Your task to perform on an android device: Go to network settings Image 0: 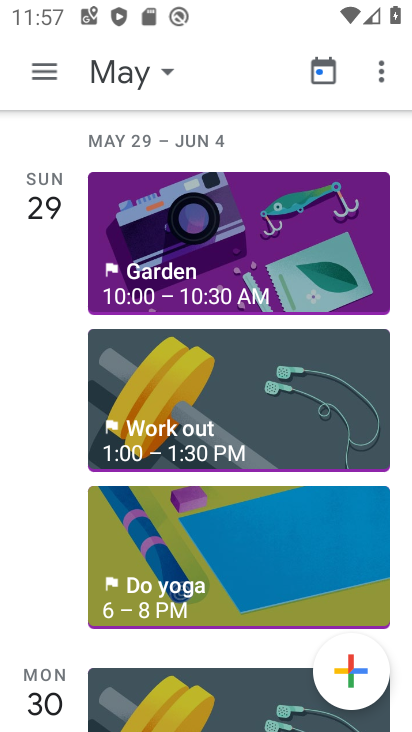
Step 0: press home button
Your task to perform on an android device: Go to network settings Image 1: 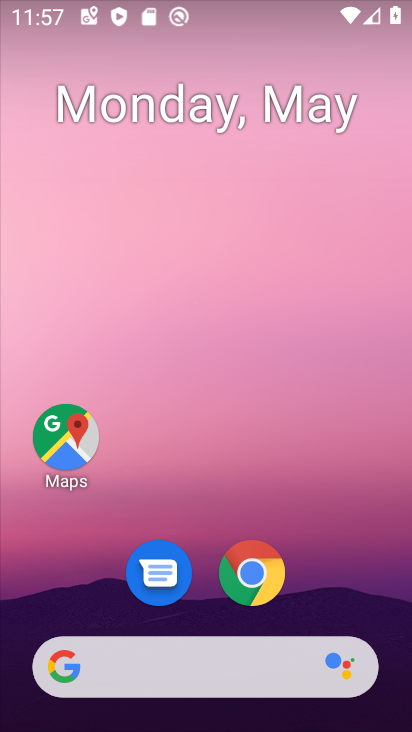
Step 1: drag from (242, 568) to (280, 63)
Your task to perform on an android device: Go to network settings Image 2: 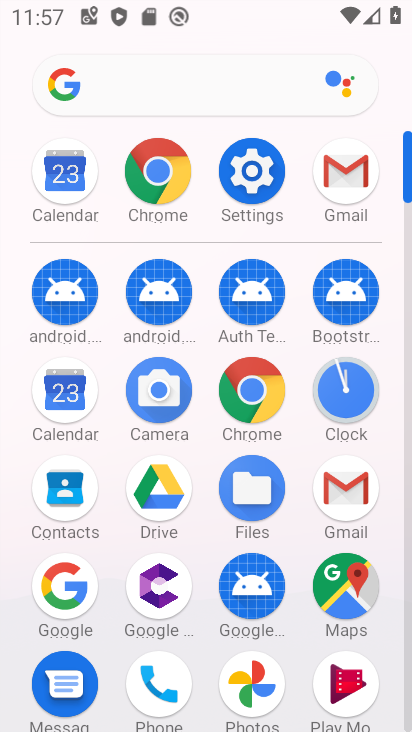
Step 2: click (272, 182)
Your task to perform on an android device: Go to network settings Image 3: 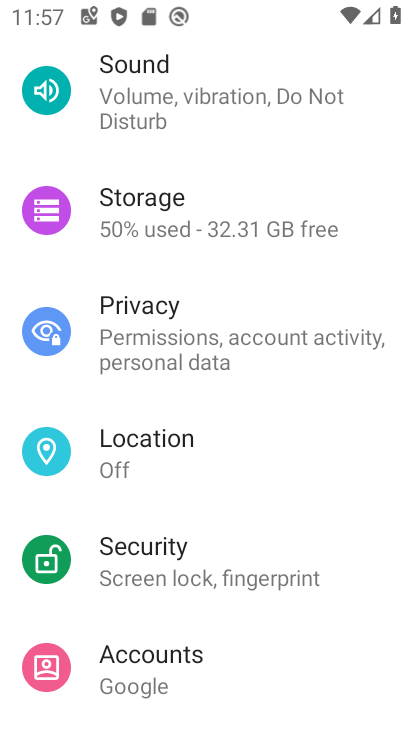
Step 3: drag from (223, 248) to (226, 613)
Your task to perform on an android device: Go to network settings Image 4: 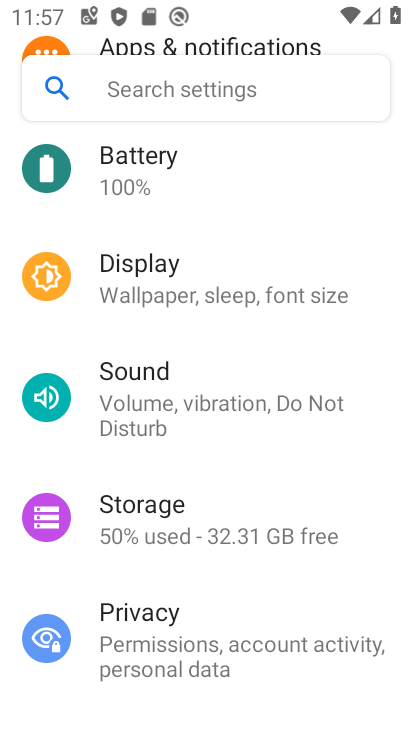
Step 4: drag from (245, 237) to (236, 717)
Your task to perform on an android device: Go to network settings Image 5: 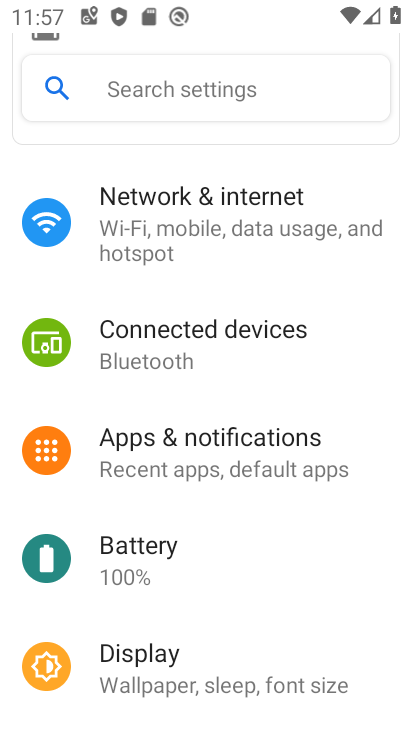
Step 5: click (224, 233)
Your task to perform on an android device: Go to network settings Image 6: 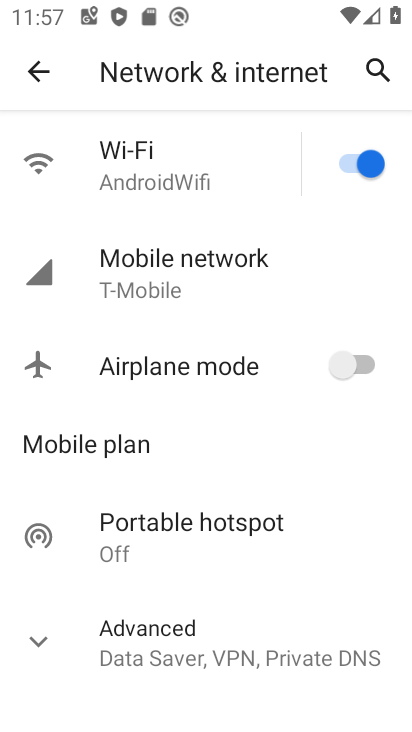
Step 6: click (192, 284)
Your task to perform on an android device: Go to network settings Image 7: 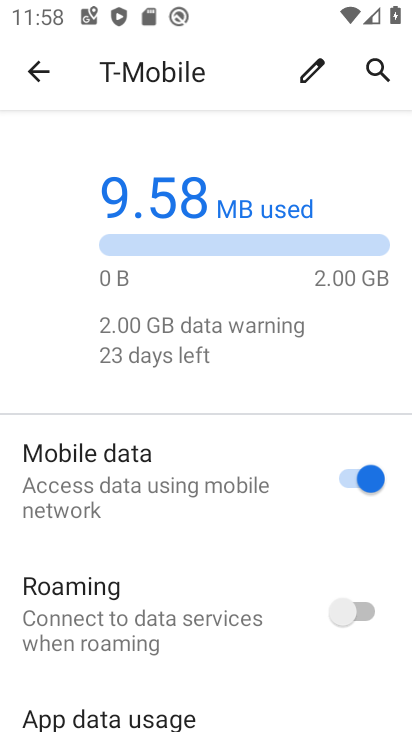
Step 7: task complete